Your task to perform on an android device: change notification settings in the gmail app Image 0: 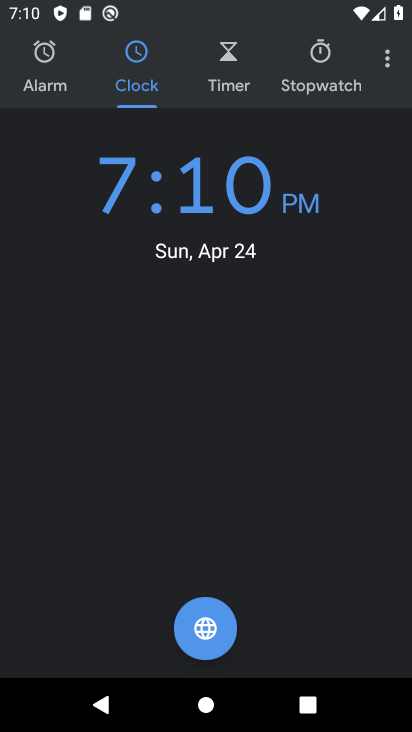
Step 0: press home button
Your task to perform on an android device: change notification settings in the gmail app Image 1: 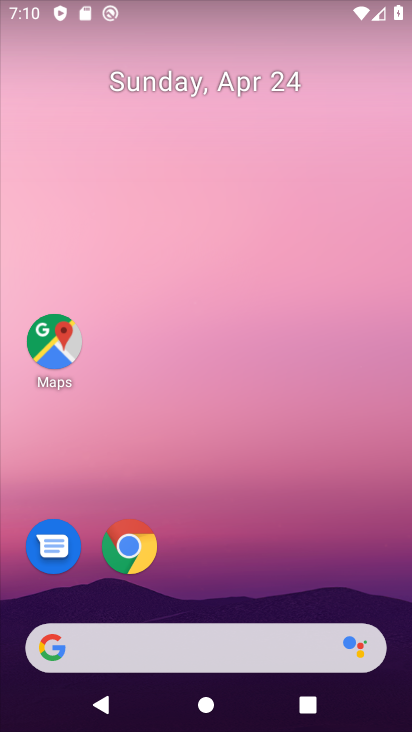
Step 1: drag from (233, 482) to (264, 7)
Your task to perform on an android device: change notification settings in the gmail app Image 2: 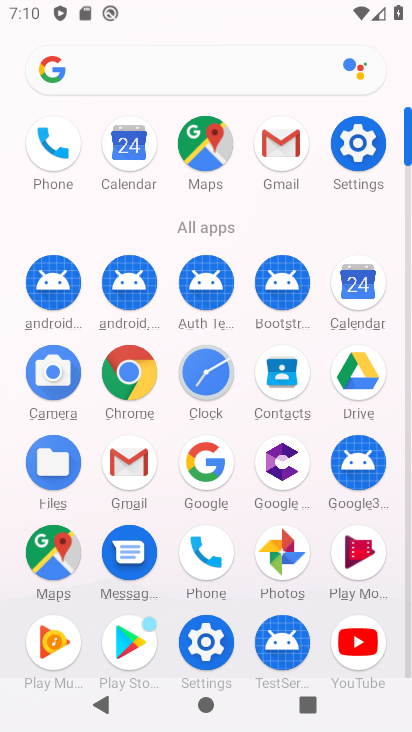
Step 2: click (279, 142)
Your task to perform on an android device: change notification settings in the gmail app Image 3: 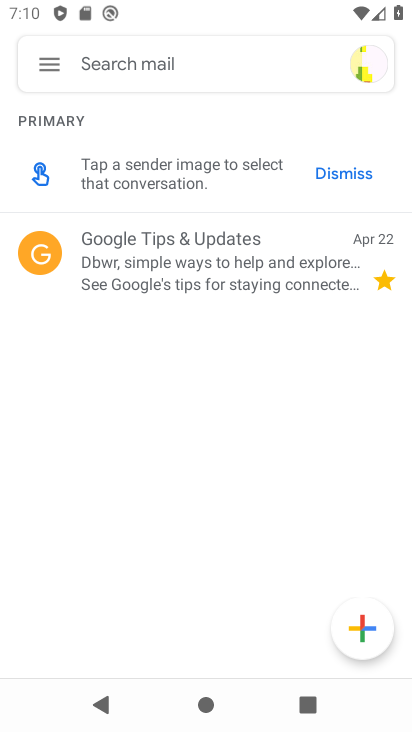
Step 3: click (43, 65)
Your task to perform on an android device: change notification settings in the gmail app Image 4: 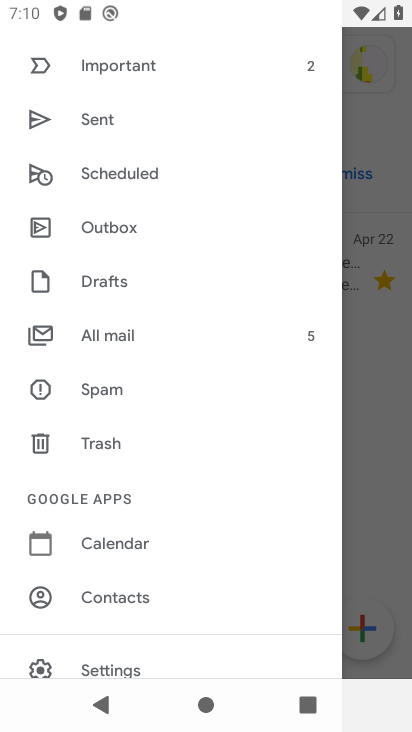
Step 4: click (53, 658)
Your task to perform on an android device: change notification settings in the gmail app Image 5: 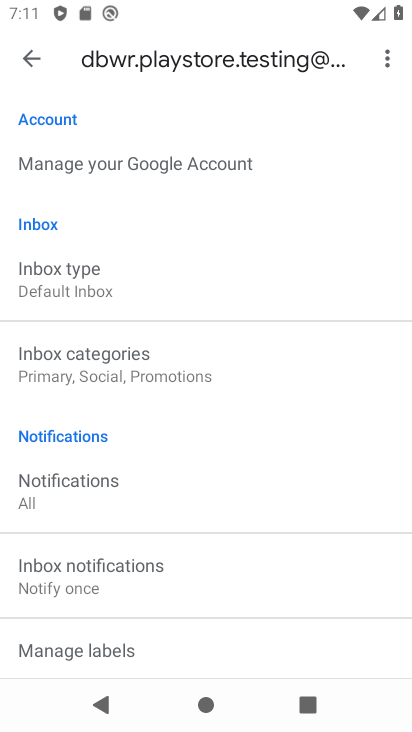
Step 5: drag from (148, 583) to (120, 378)
Your task to perform on an android device: change notification settings in the gmail app Image 6: 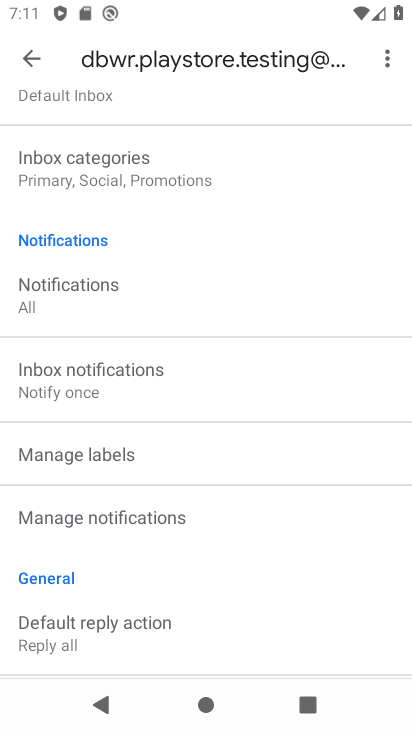
Step 6: click (19, 60)
Your task to perform on an android device: change notification settings in the gmail app Image 7: 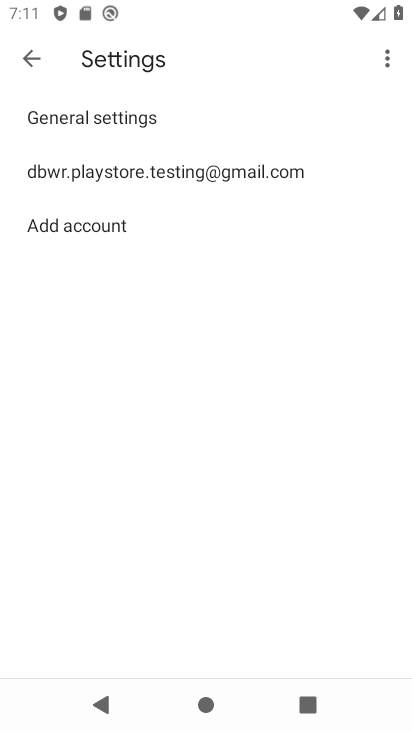
Step 7: click (90, 107)
Your task to perform on an android device: change notification settings in the gmail app Image 8: 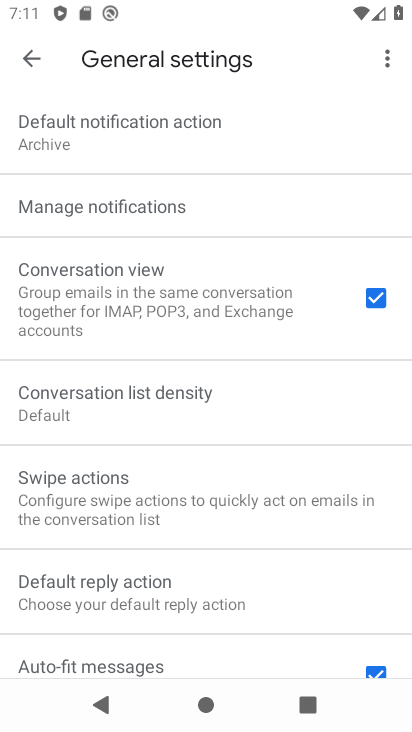
Step 8: click (94, 200)
Your task to perform on an android device: change notification settings in the gmail app Image 9: 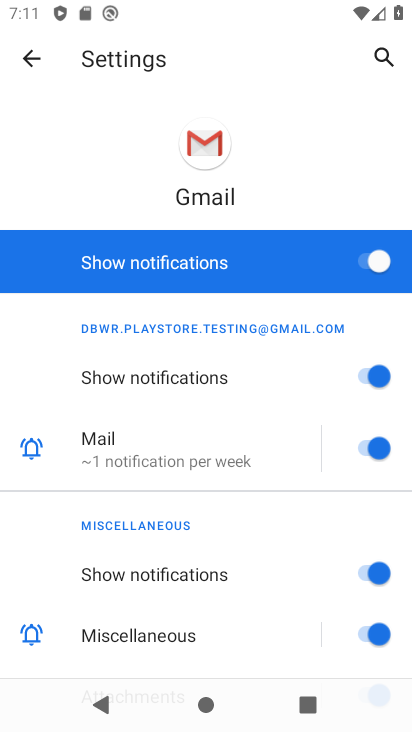
Step 9: click (369, 264)
Your task to perform on an android device: change notification settings in the gmail app Image 10: 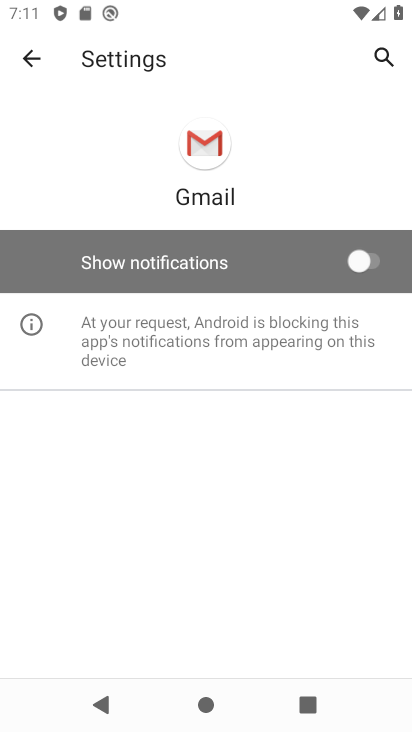
Step 10: task complete